Your task to perform on an android device: Go to network settings Image 0: 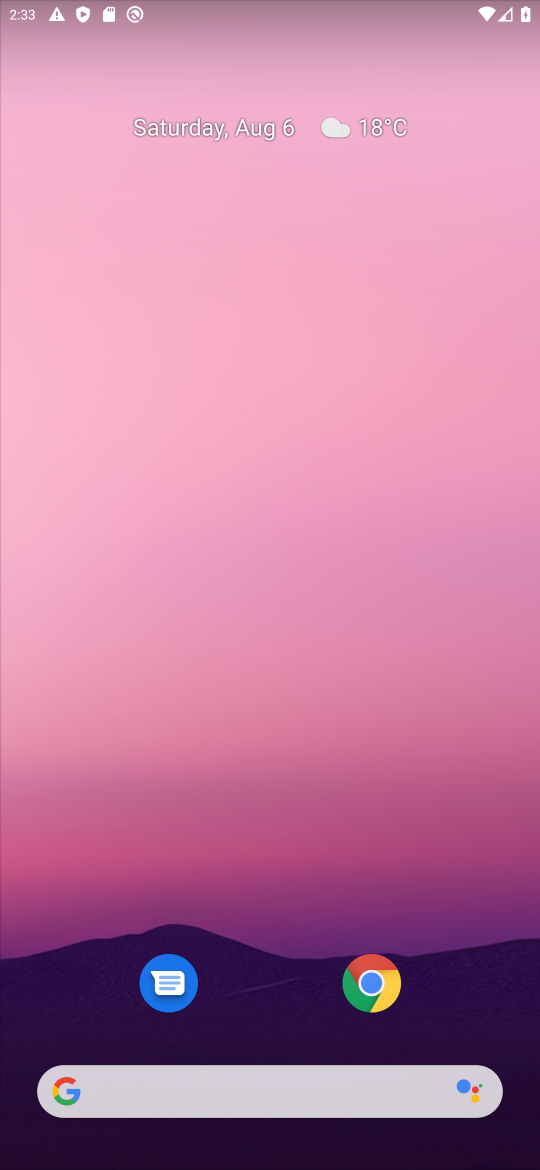
Step 0: drag from (226, 878) to (169, 32)
Your task to perform on an android device: Go to network settings Image 1: 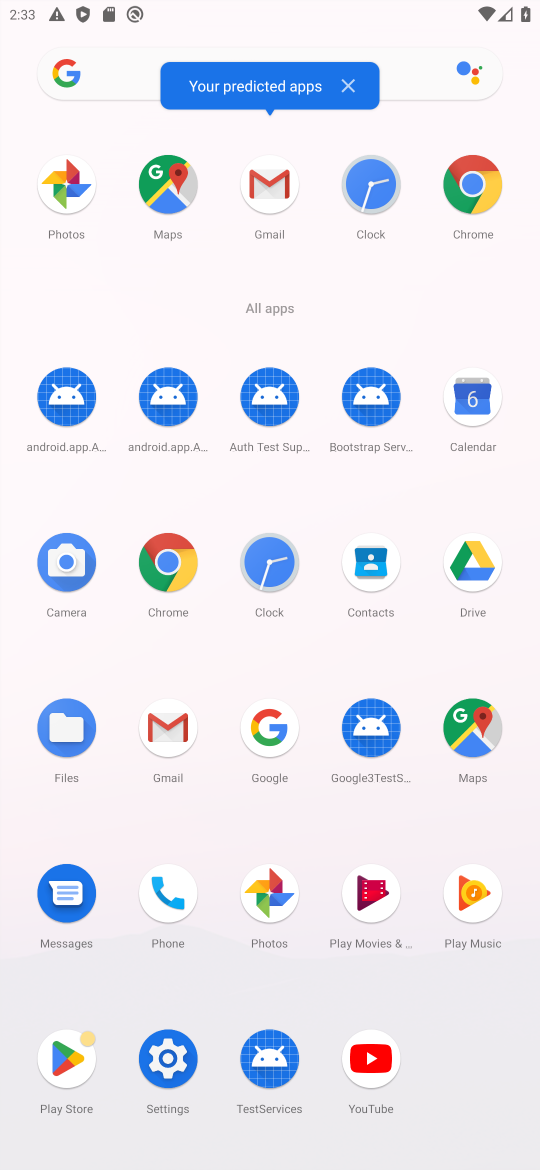
Step 1: click (183, 1062)
Your task to perform on an android device: Go to network settings Image 2: 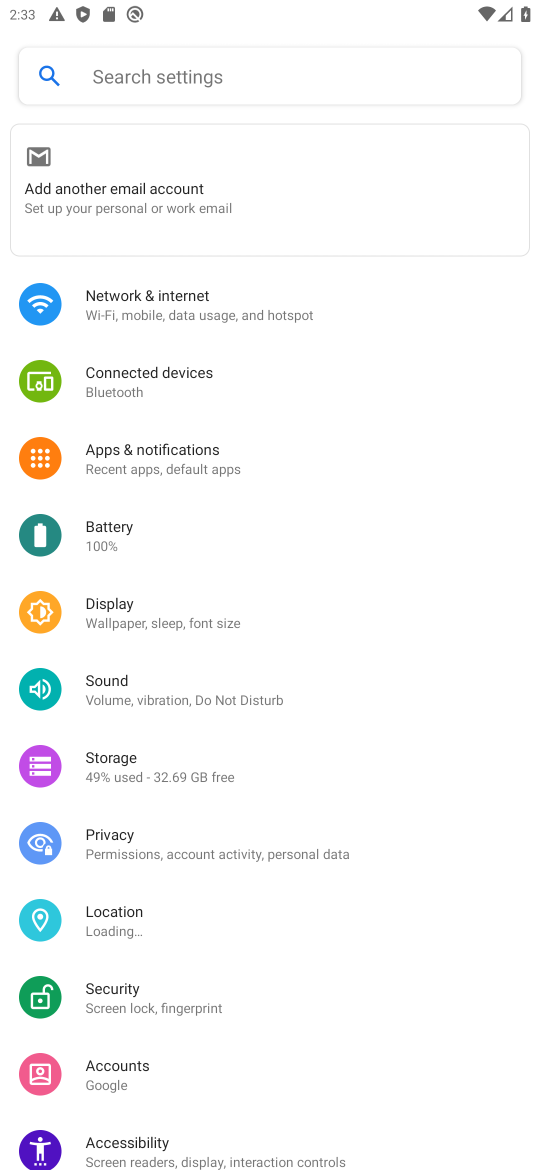
Step 2: click (188, 322)
Your task to perform on an android device: Go to network settings Image 3: 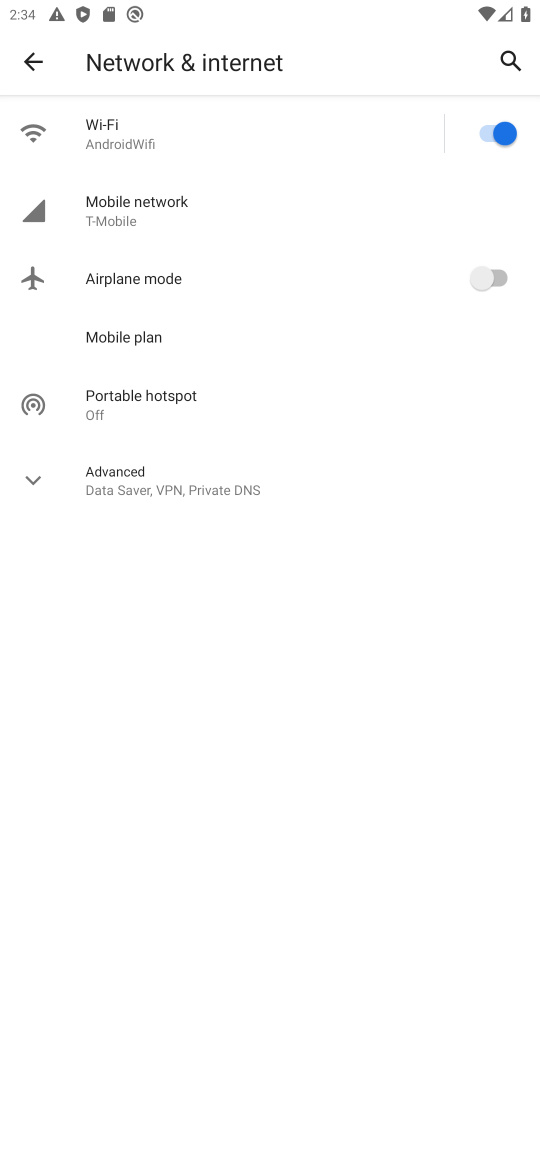
Step 3: task complete